Your task to perform on an android device: Search for the best selling books on Target. Image 0: 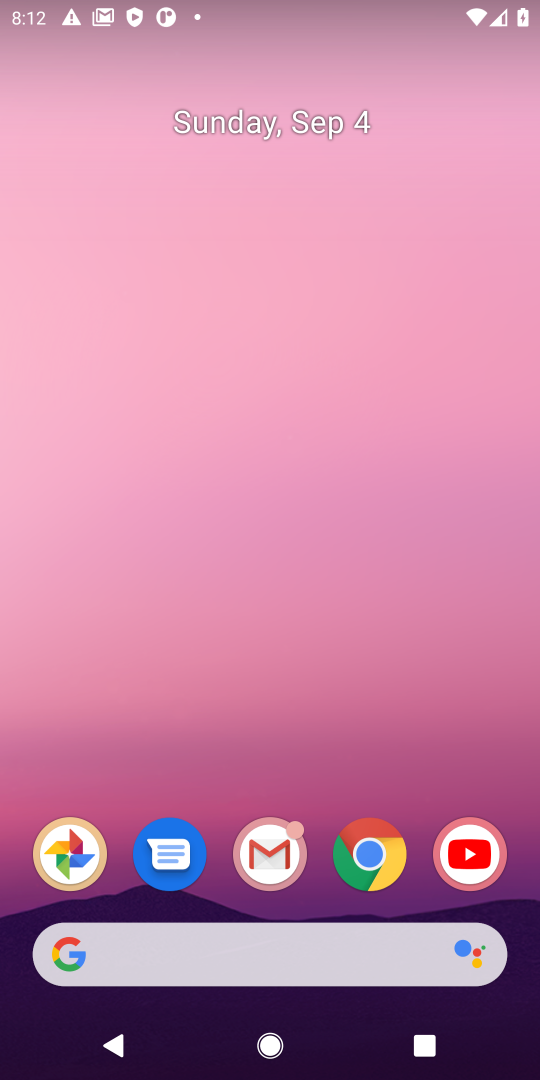
Step 0: press home button
Your task to perform on an android device: Search for the best selling books on Target. Image 1: 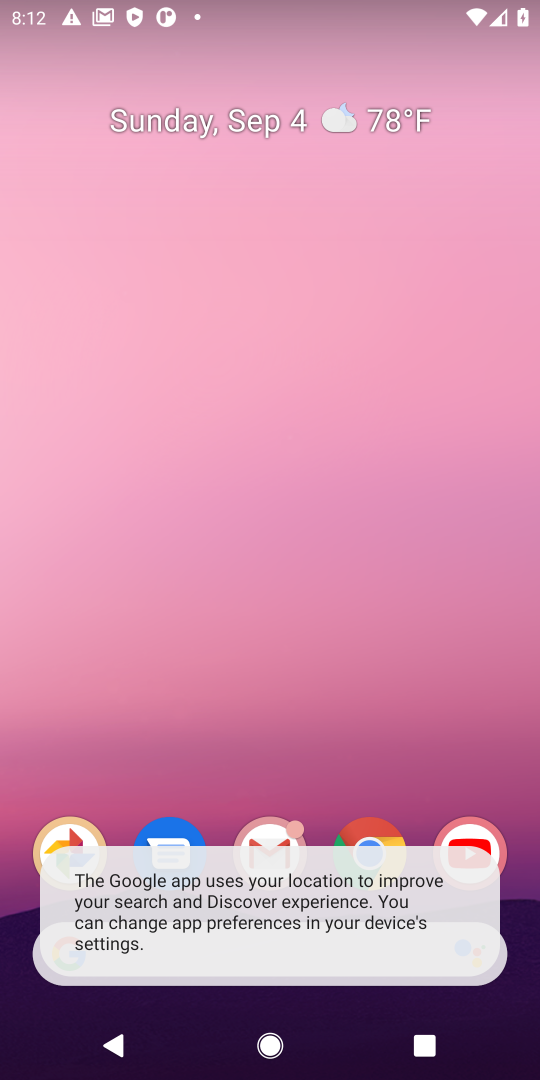
Step 1: drag from (307, 758) to (345, 102)
Your task to perform on an android device: Search for the best selling books on Target. Image 2: 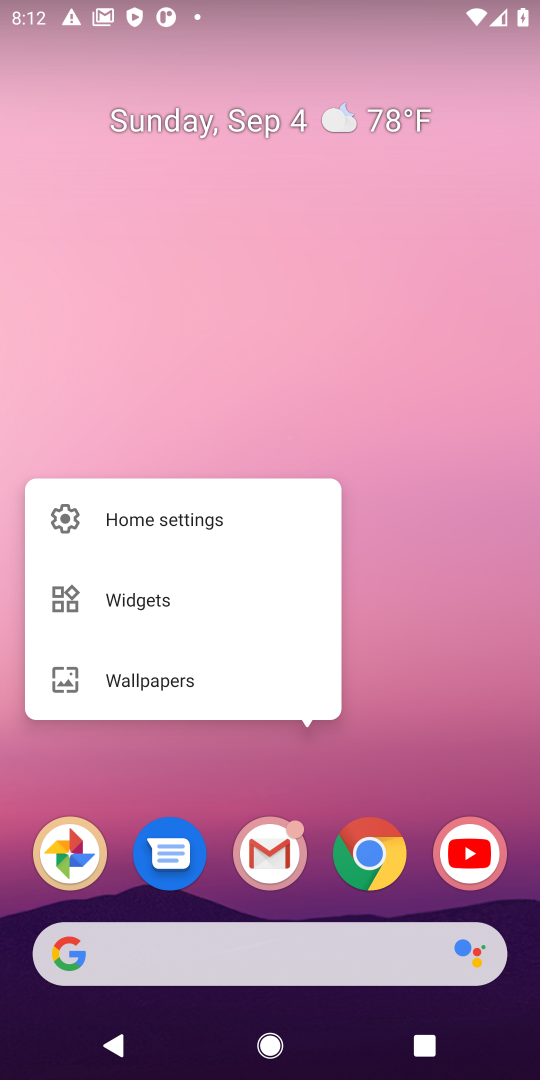
Step 2: click (453, 636)
Your task to perform on an android device: Search for the best selling books on Target. Image 3: 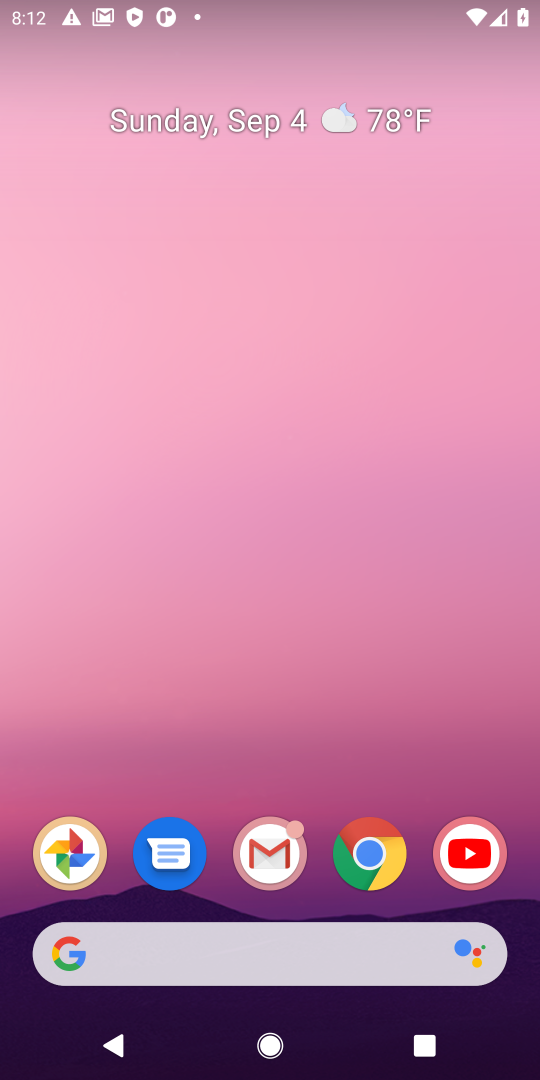
Step 3: drag from (318, 773) to (321, 5)
Your task to perform on an android device: Search for the best selling books on Target. Image 4: 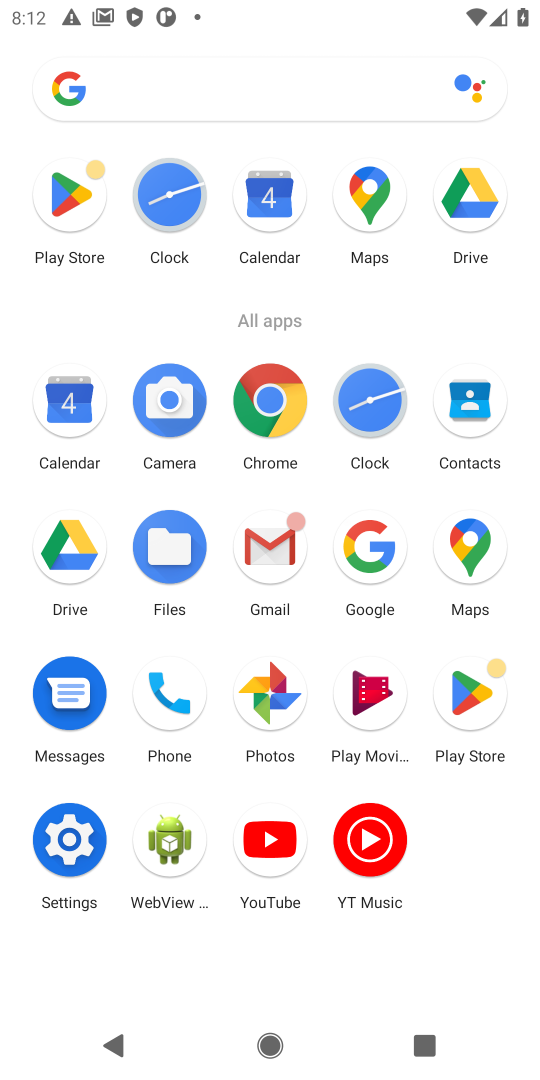
Step 4: click (264, 404)
Your task to perform on an android device: Search for the best selling books on Target. Image 5: 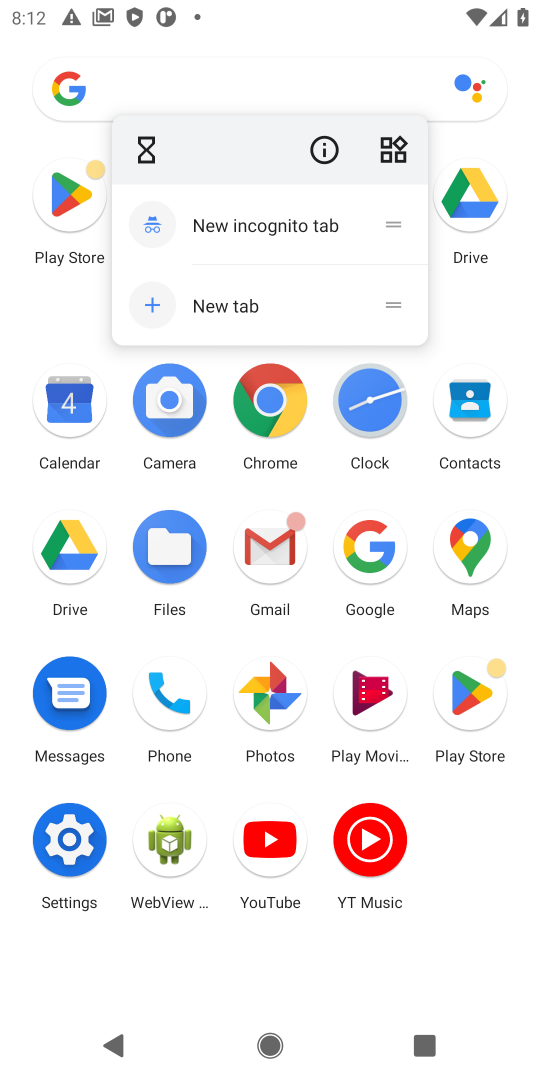
Step 5: click (269, 395)
Your task to perform on an android device: Search for the best selling books on Target. Image 6: 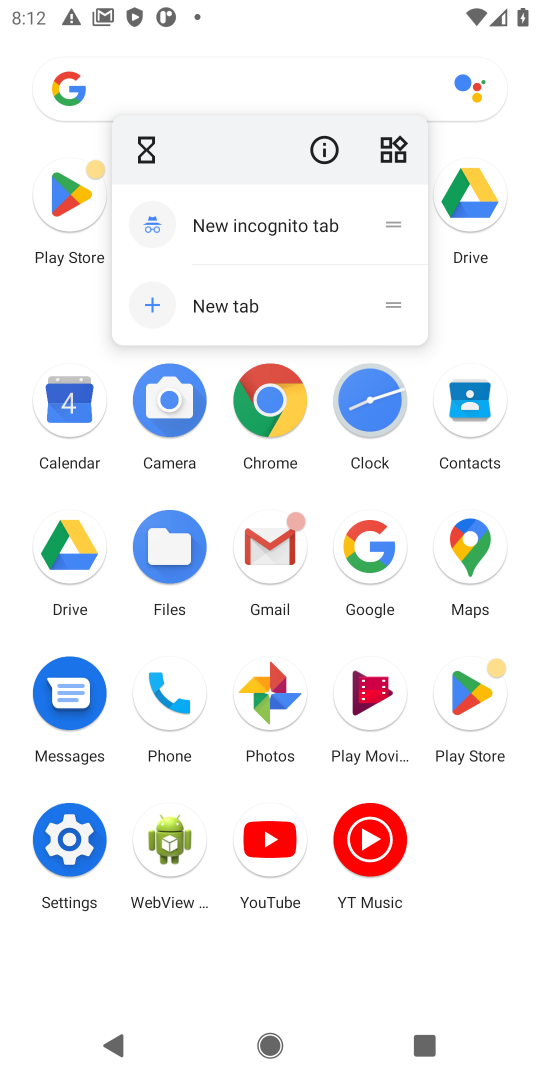
Step 6: click (269, 395)
Your task to perform on an android device: Search for the best selling books on Target. Image 7: 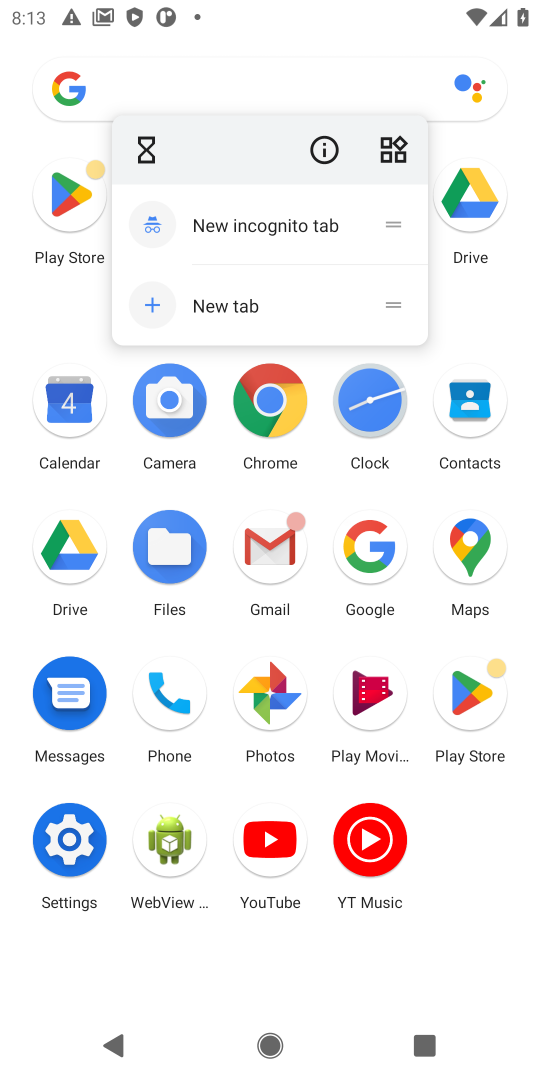
Step 7: click (271, 401)
Your task to perform on an android device: Search for the best selling books on Target. Image 8: 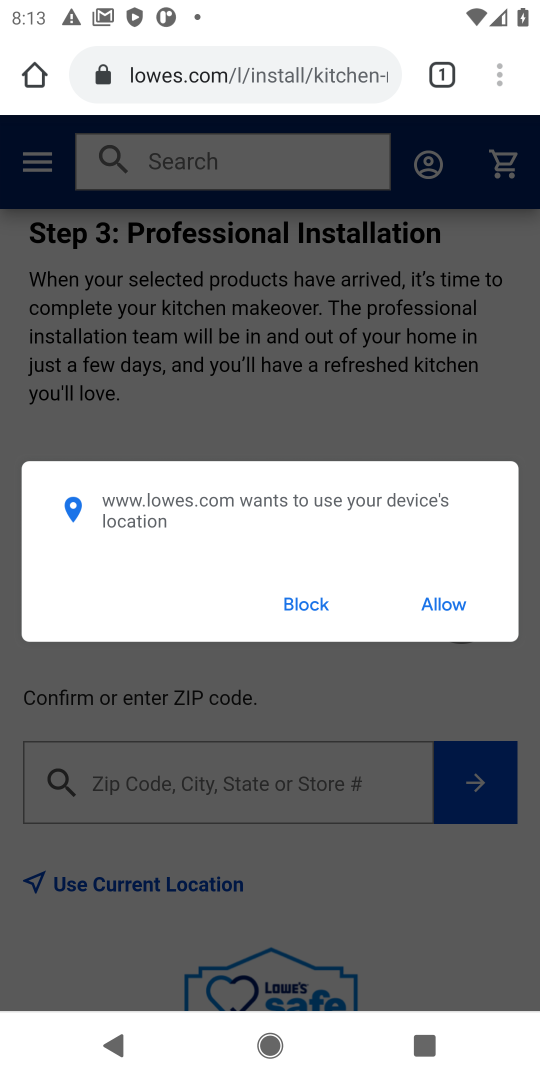
Step 8: click (444, 76)
Your task to perform on an android device: Search for the best selling books on Target. Image 9: 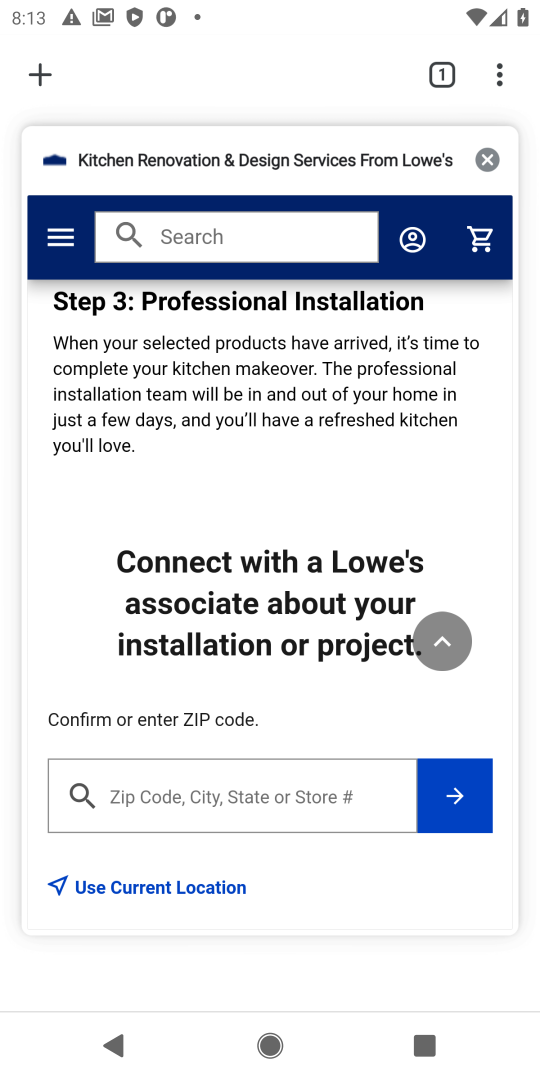
Step 9: click (489, 152)
Your task to perform on an android device: Search for the best selling books on Target. Image 10: 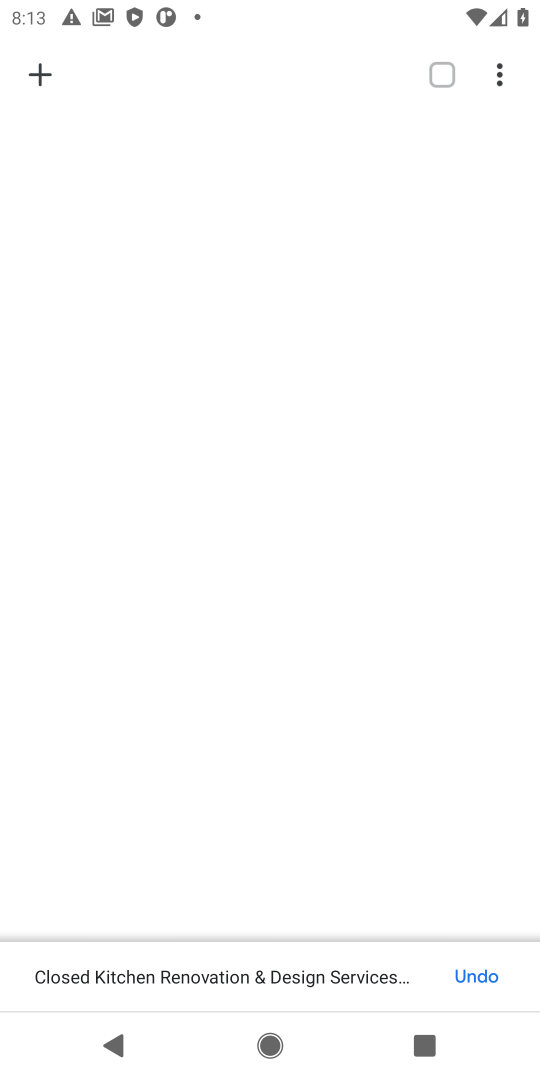
Step 10: click (37, 81)
Your task to perform on an android device: Search for the best selling books on Target. Image 11: 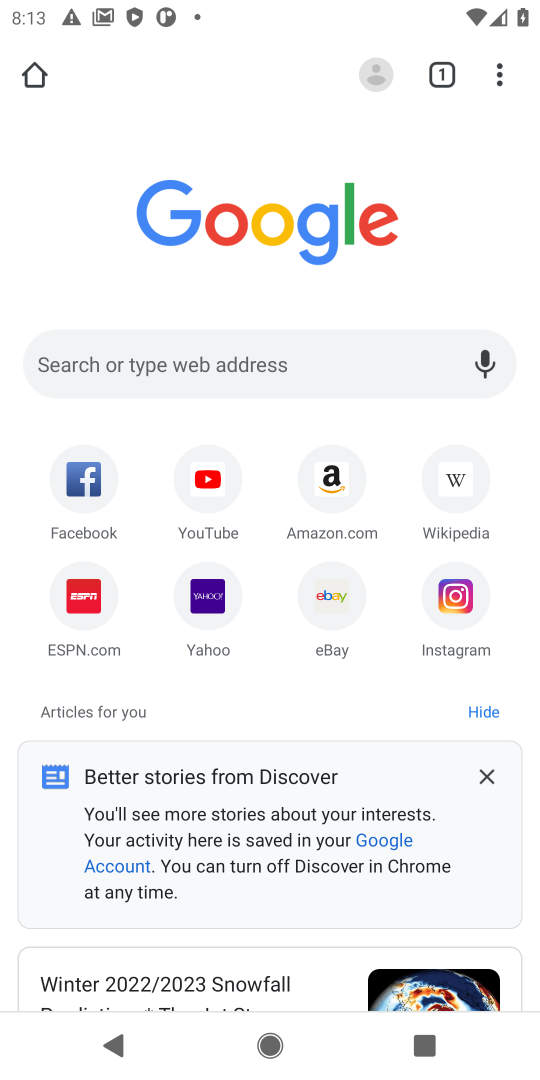
Step 11: click (187, 352)
Your task to perform on an android device: Search for the best selling books on Target. Image 12: 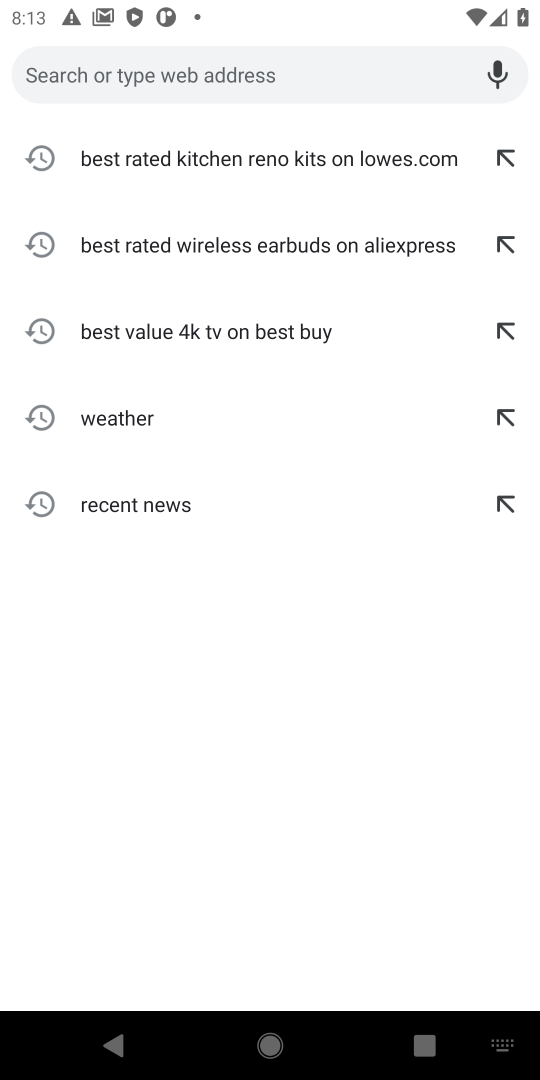
Step 12: type "best selling books on Target"
Your task to perform on an android device: Search for the best selling books on Target. Image 13: 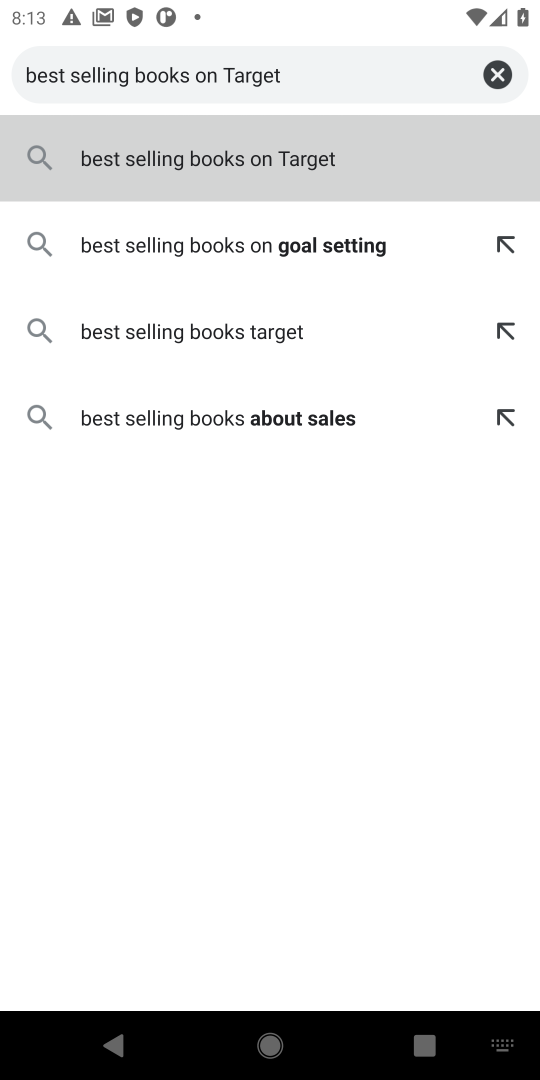
Step 13: click (257, 138)
Your task to perform on an android device: Search for the best selling books on Target. Image 14: 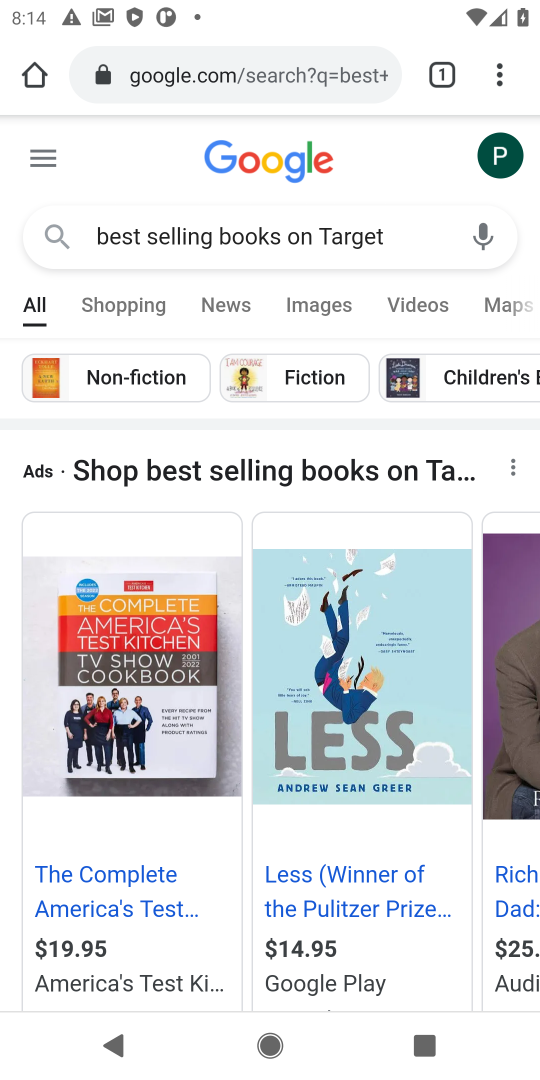
Step 14: drag from (250, 964) to (270, 374)
Your task to perform on an android device: Search for the best selling books on Target. Image 15: 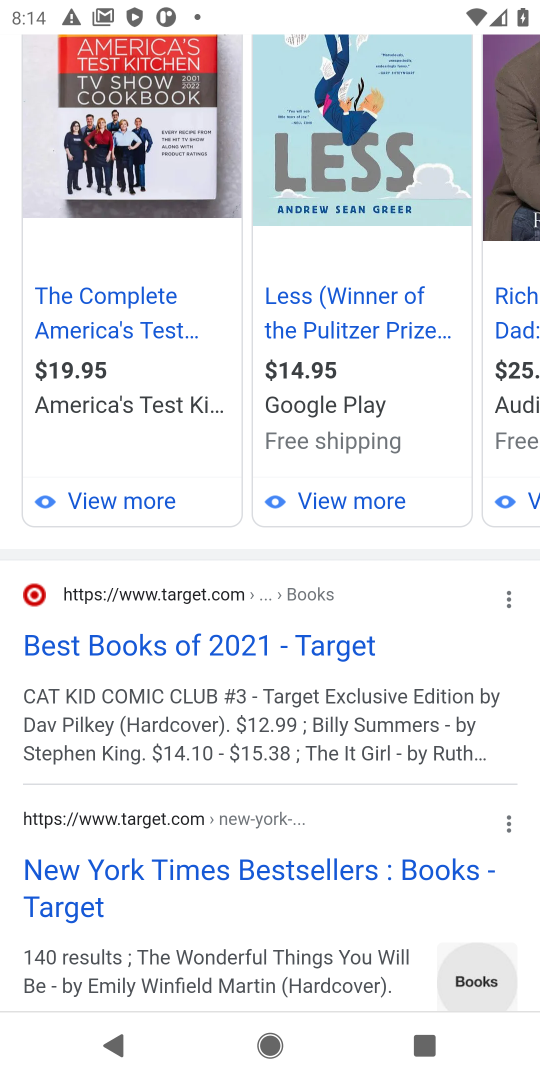
Step 15: click (222, 643)
Your task to perform on an android device: Search for the best selling books on Target. Image 16: 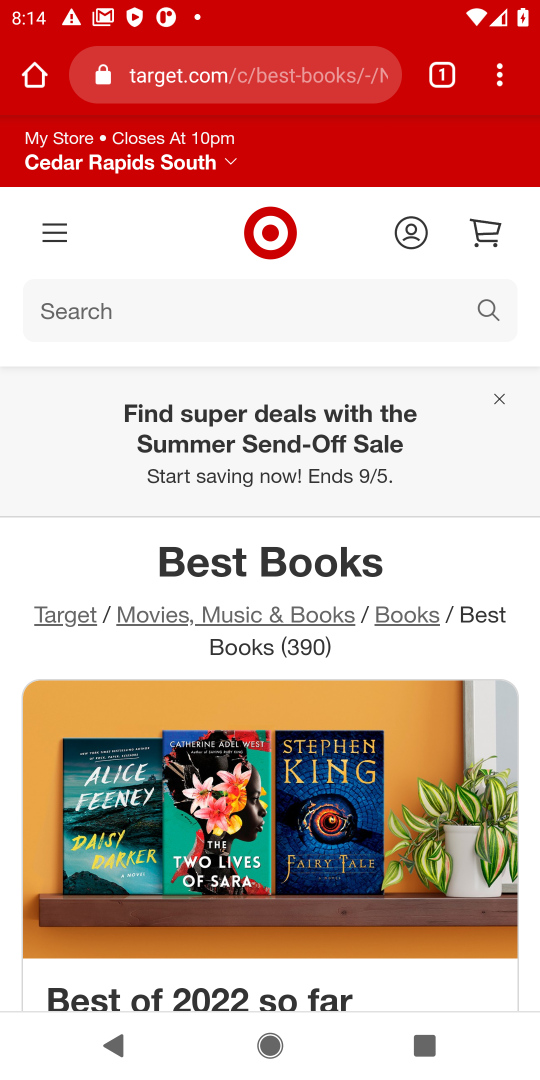
Step 16: drag from (173, 918) to (147, 401)
Your task to perform on an android device: Search for the best selling books on Target. Image 17: 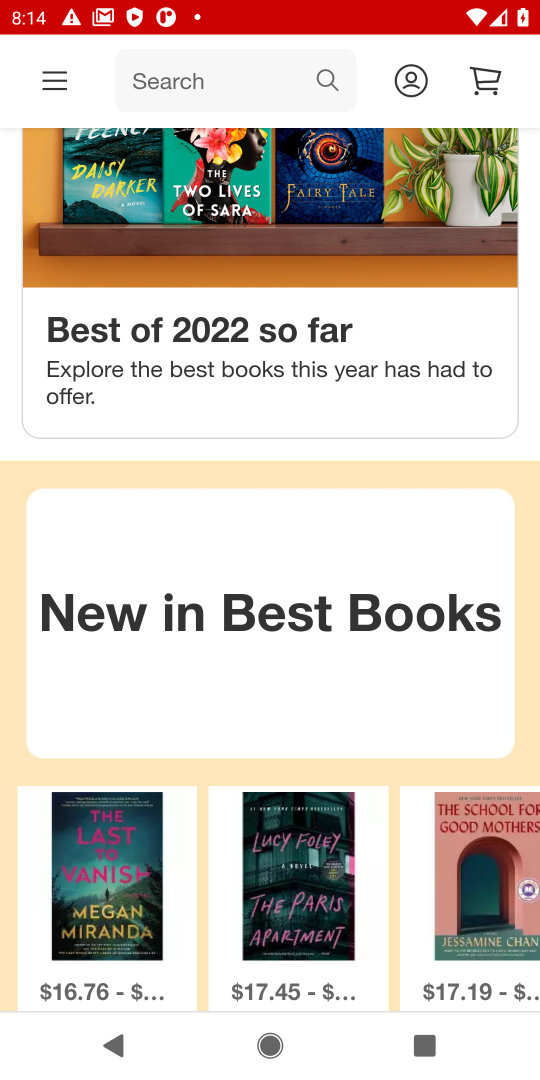
Step 17: drag from (253, 865) to (266, 179)
Your task to perform on an android device: Search for the best selling books on Target. Image 18: 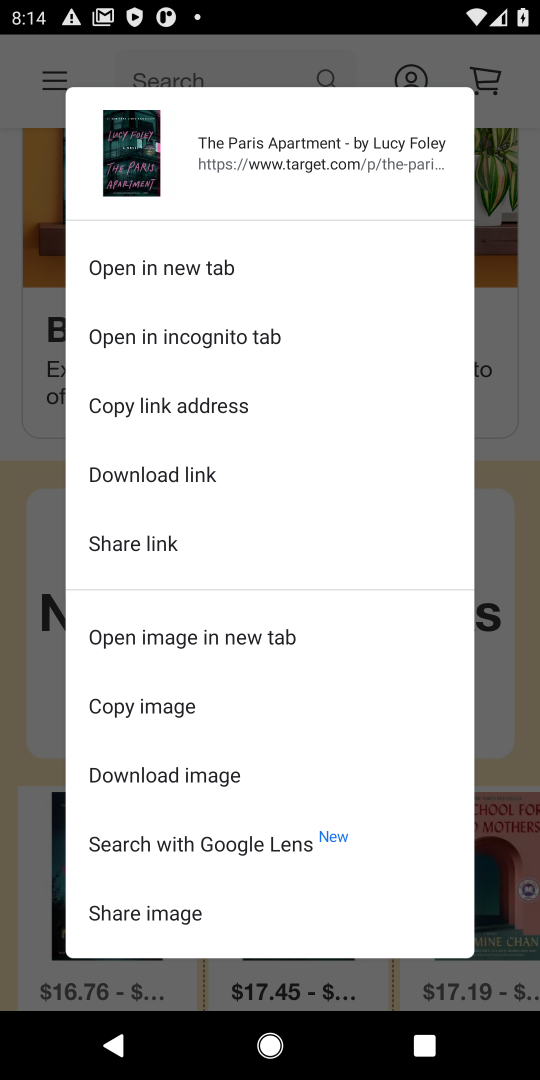
Step 18: click (28, 769)
Your task to perform on an android device: Search for the best selling books on Target. Image 19: 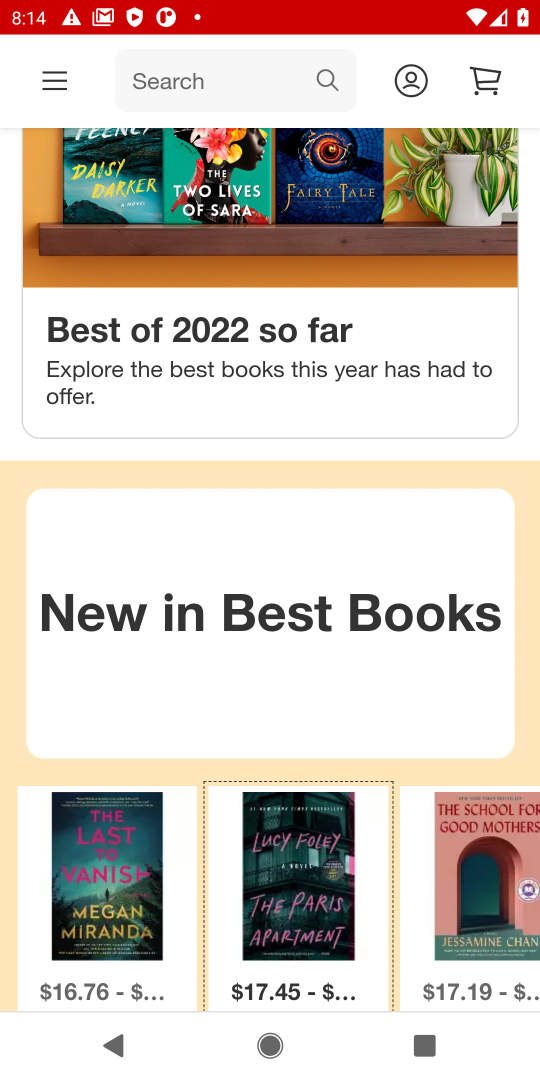
Step 19: task complete